Your task to perform on an android device: Go to Yahoo.com Image 0: 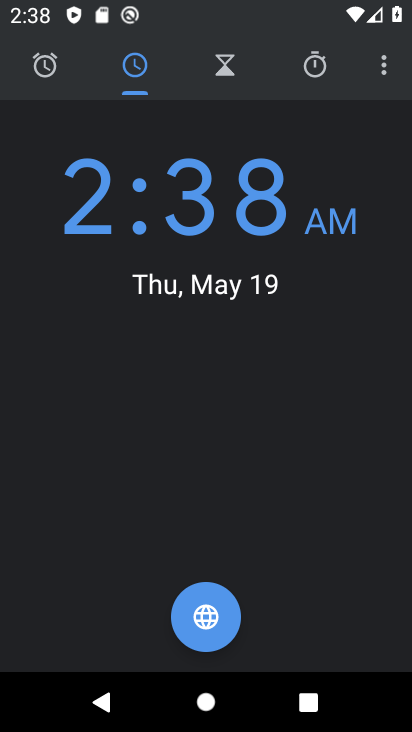
Step 0: press home button
Your task to perform on an android device: Go to Yahoo.com Image 1: 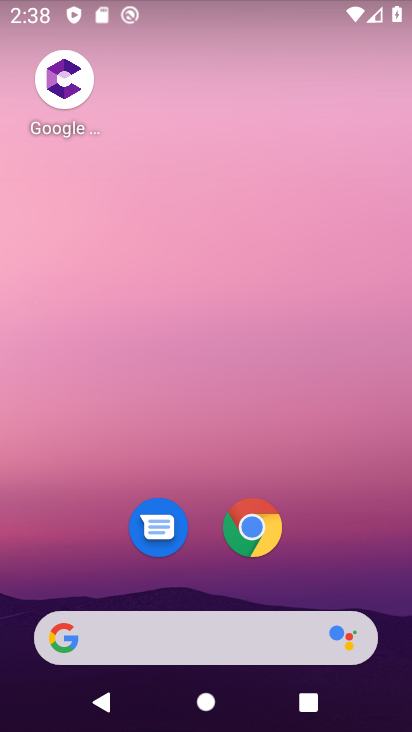
Step 1: click (252, 524)
Your task to perform on an android device: Go to Yahoo.com Image 2: 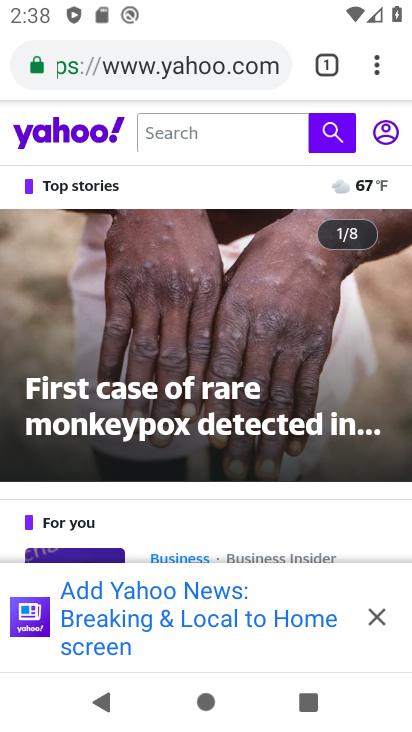
Step 2: task complete